Your task to perform on an android device: Open calendar and show me the fourth week of next month Image 0: 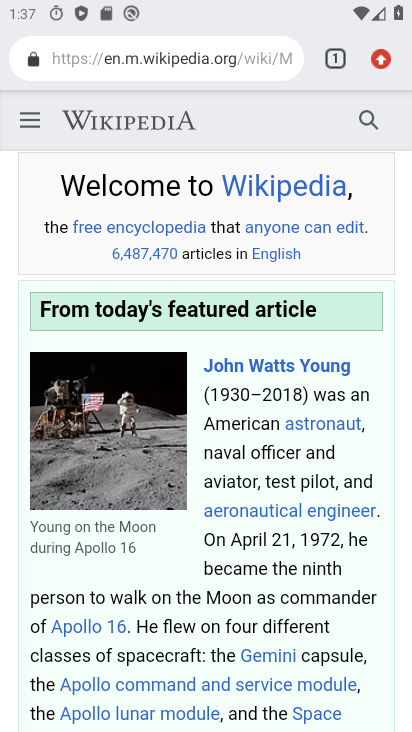
Step 0: press back button
Your task to perform on an android device: Open calendar and show me the fourth week of next month Image 1: 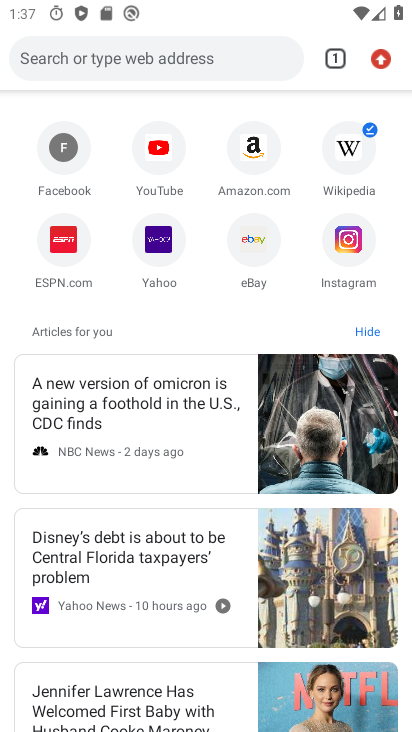
Step 1: press back button
Your task to perform on an android device: Open calendar and show me the fourth week of next month Image 2: 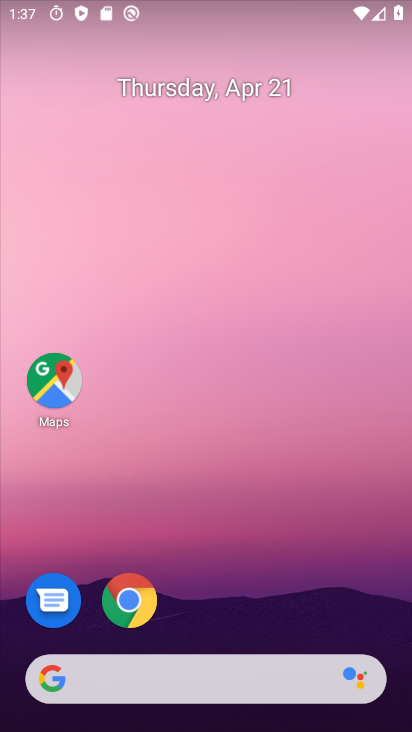
Step 2: drag from (248, 449) to (315, 42)
Your task to perform on an android device: Open calendar and show me the fourth week of next month Image 3: 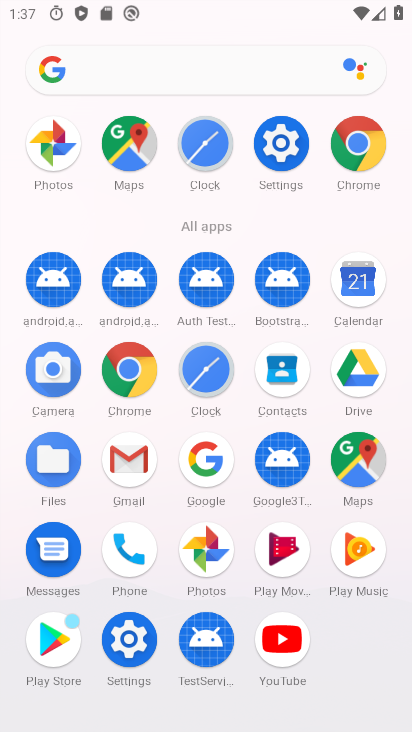
Step 3: click (357, 281)
Your task to perform on an android device: Open calendar and show me the fourth week of next month Image 4: 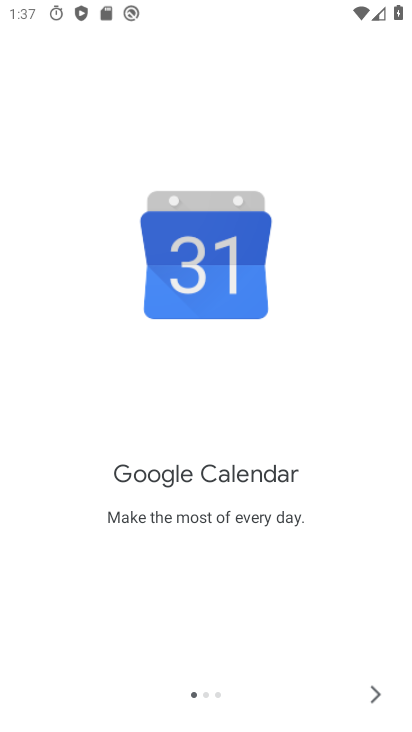
Step 4: click (376, 697)
Your task to perform on an android device: Open calendar and show me the fourth week of next month Image 5: 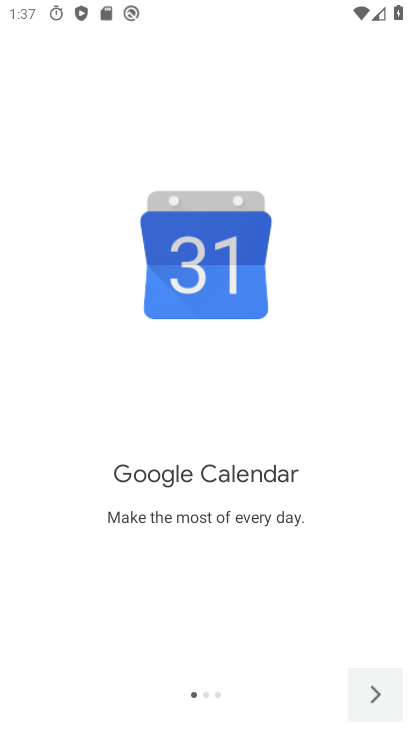
Step 5: click (376, 697)
Your task to perform on an android device: Open calendar and show me the fourth week of next month Image 6: 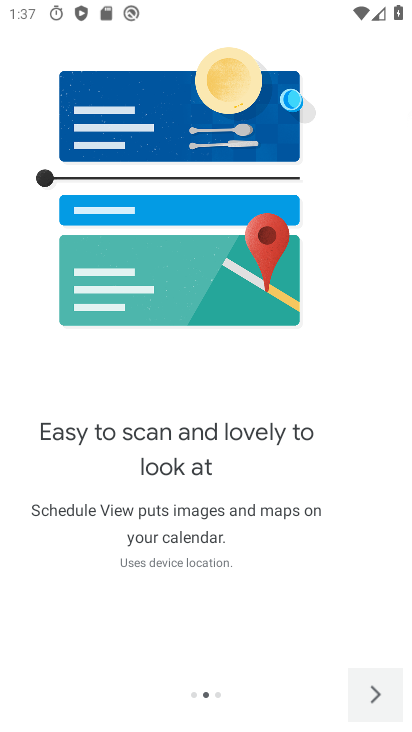
Step 6: click (376, 697)
Your task to perform on an android device: Open calendar and show me the fourth week of next month Image 7: 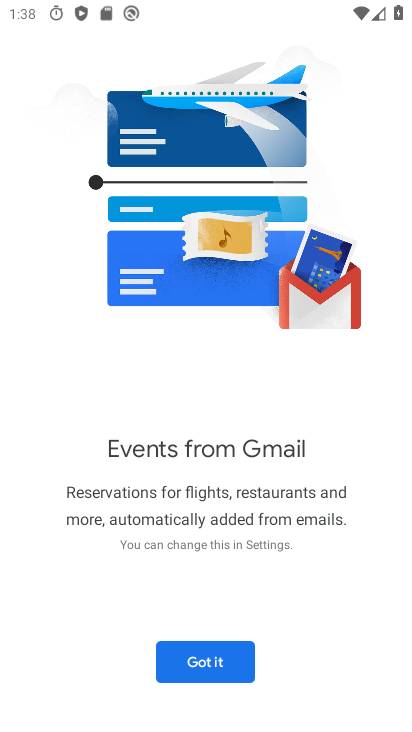
Step 7: click (215, 667)
Your task to perform on an android device: Open calendar and show me the fourth week of next month Image 8: 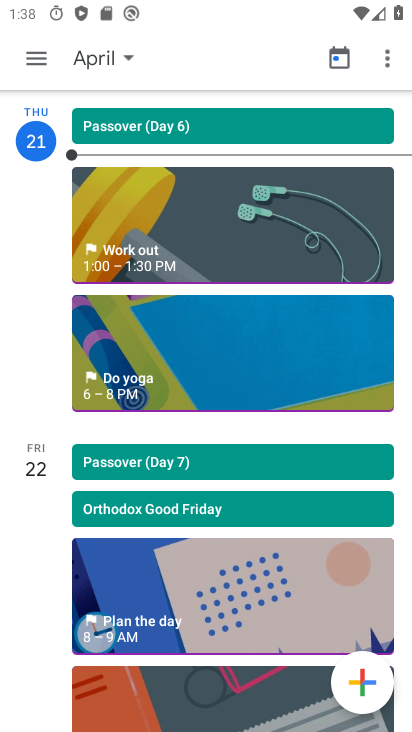
Step 8: click (108, 54)
Your task to perform on an android device: Open calendar and show me the fourth week of next month Image 9: 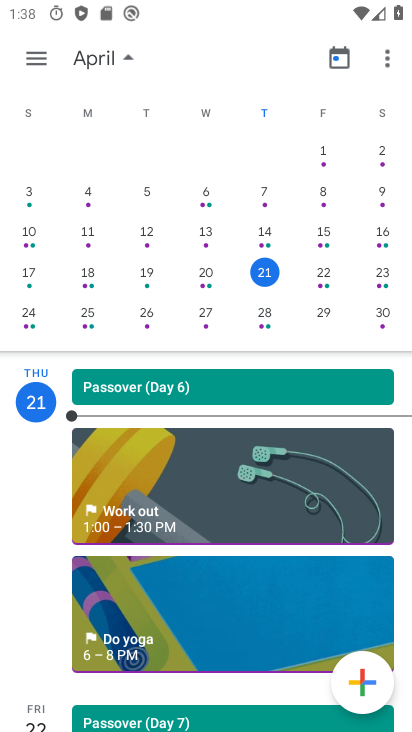
Step 9: drag from (311, 257) to (32, 238)
Your task to perform on an android device: Open calendar and show me the fourth week of next month Image 10: 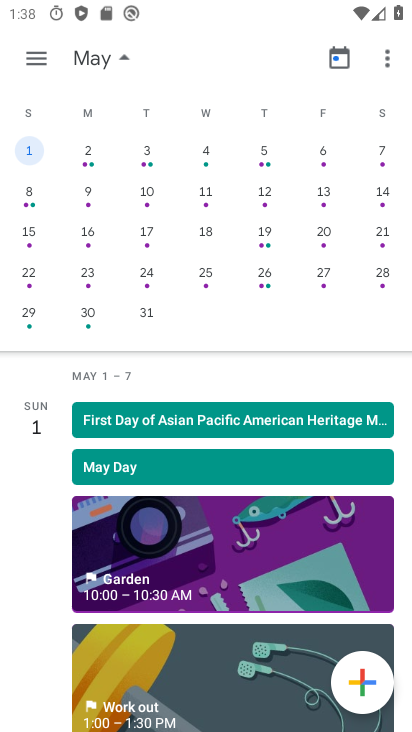
Step 10: click (86, 270)
Your task to perform on an android device: Open calendar and show me the fourth week of next month Image 11: 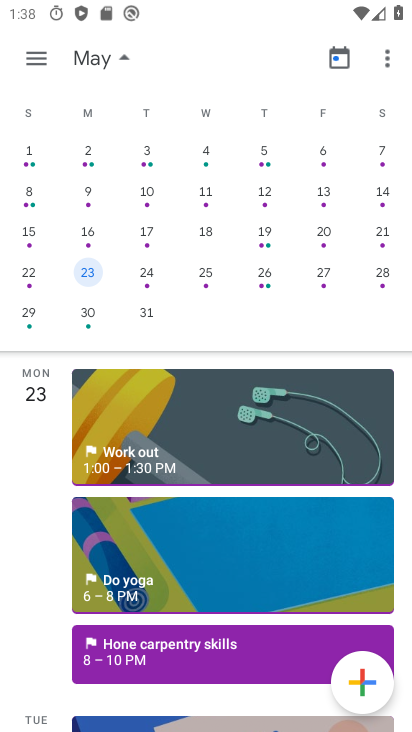
Step 11: task complete